Your task to perform on an android device: check out phone information Image 0: 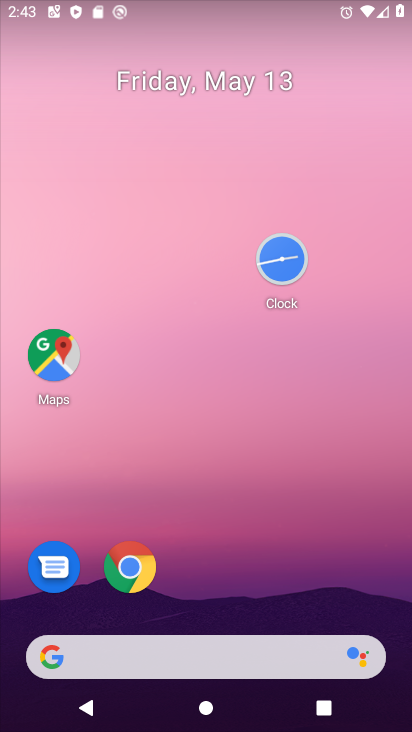
Step 0: drag from (278, 560) to (139, 223)
Your task to perform on an android device: check out phone information Image 1: 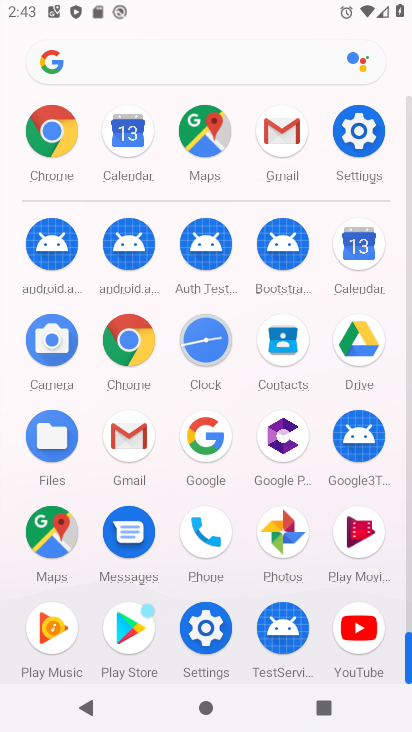
Step 1: click (201, 629)
Your task to perform on an android device: check out phone information Image 2: 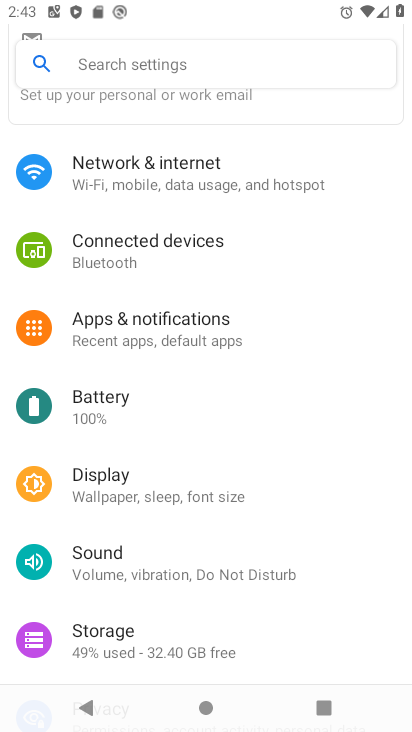
Step 2: task complete